Your task to perform on an android device: Go to Amazon Image 0: 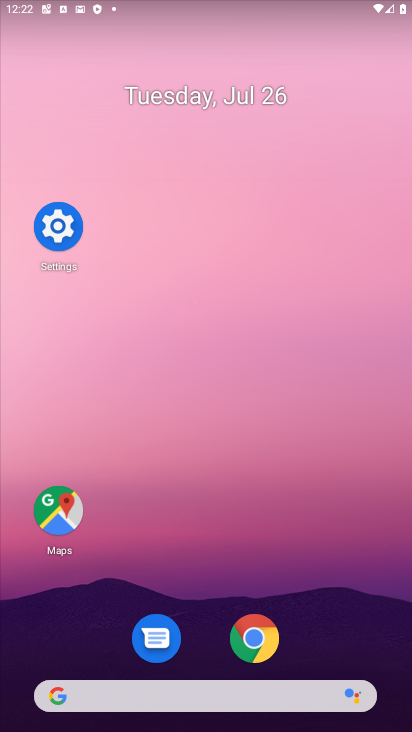
Step 0: click (245, 651)
Your task to perform on an android device: Go to Amazon Image 1: 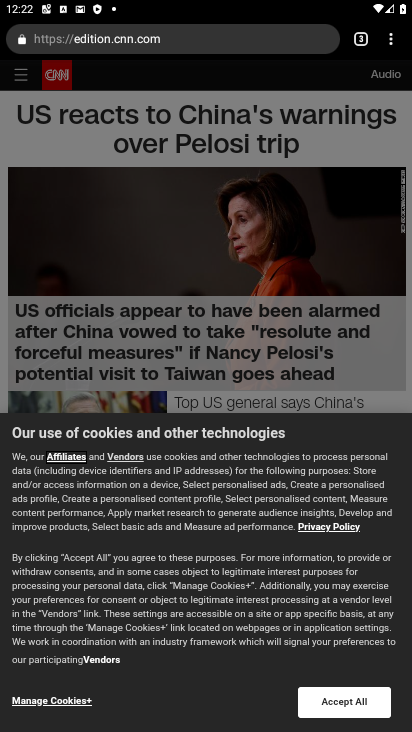
Step 1: click (359, 41)
Your task to perform on an android device: Go to Amazon Image 2: 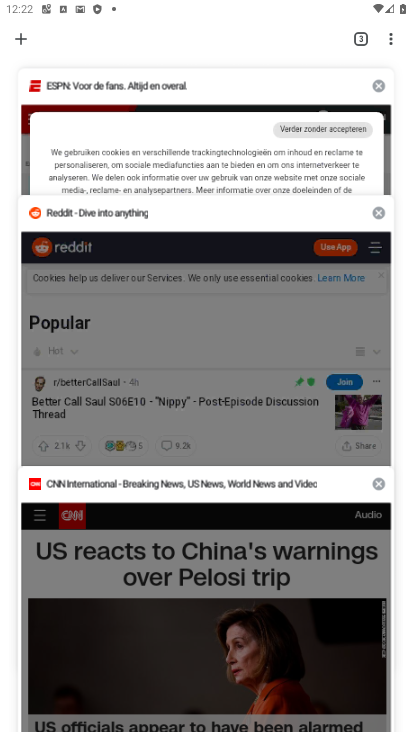
Step 2: drag from (142, 142) to (176, 441)
Your task to perform on an android device: Go to Amazon Image 3: 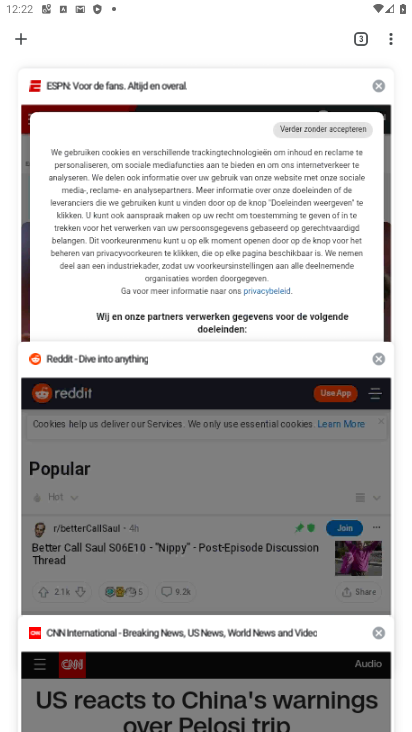
Step 3: click (10, 32)
Your task to perform on an android device: Go to Amazon Image 4: 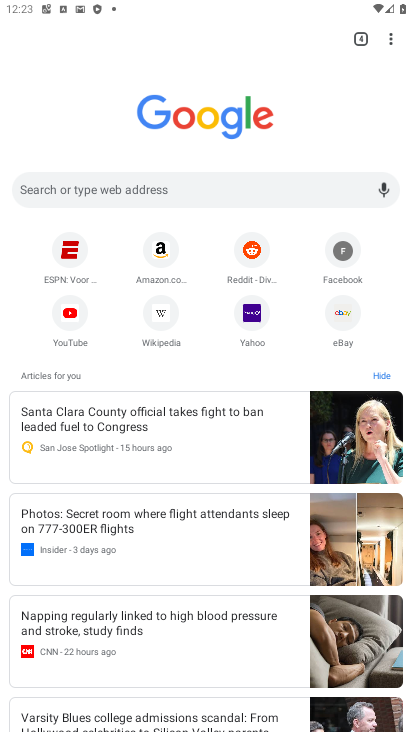
Step 4: click (153, 254)
Your task to perform on an android device: Go to Amazon Image 5: 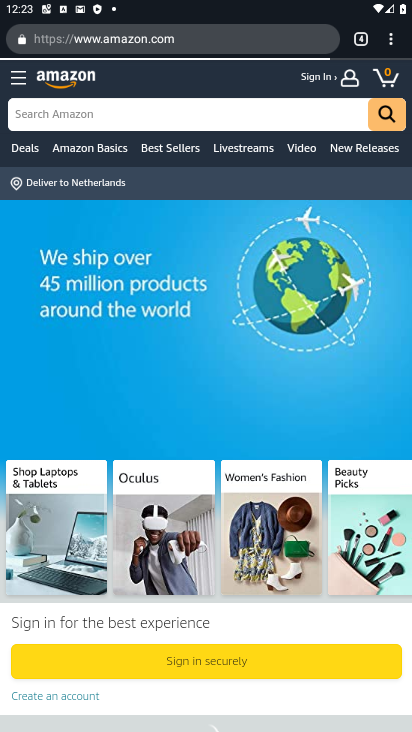
Step 5: task complete